Your task to perform on an android device: open a bookmark in the chrome app Image 0: 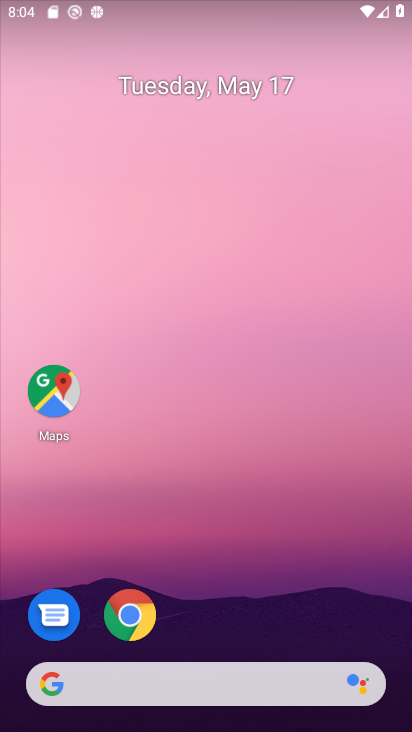
Step 0: click (126, 623)
Your task to perform on an android device: open a bookmark in the chrome app Image 1: 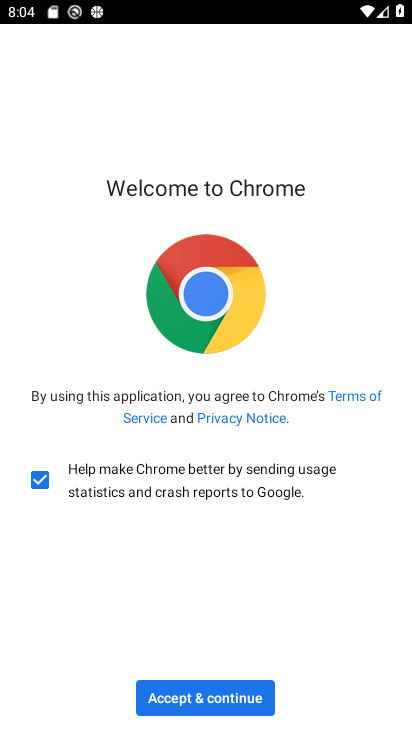
Step 1: click (197, 696)
Your task to perform on an android device: open a bookmark in the chrome app Image 2: 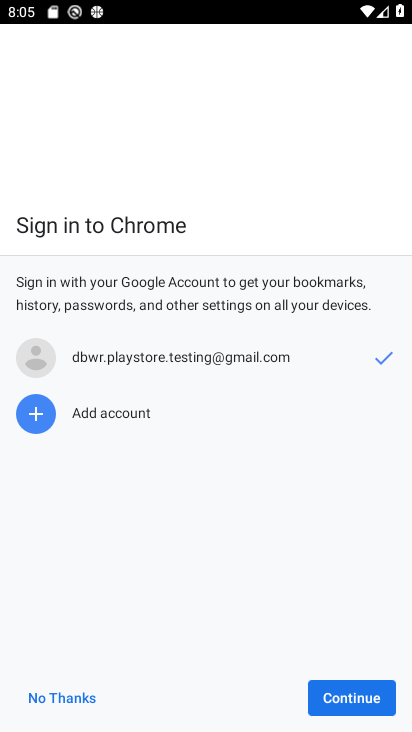
Step 2: click (329, 701)
Your task to perform on an android device: open a bookmark in the chrome app Image 3: 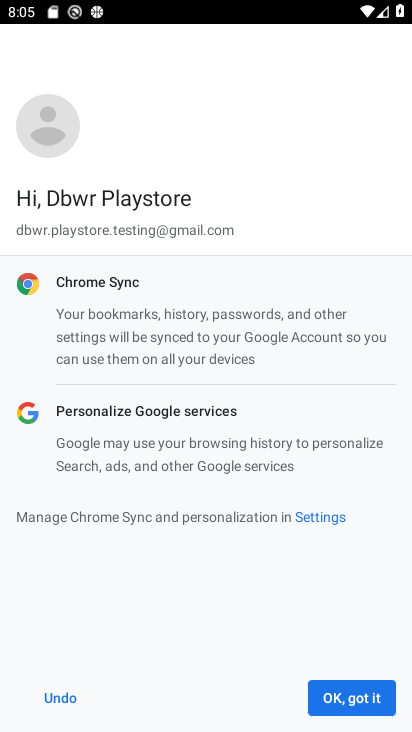
Step 3: click (333, 702)
Your task to perform on an android device: open a bookmark in the chrome app Image 4: 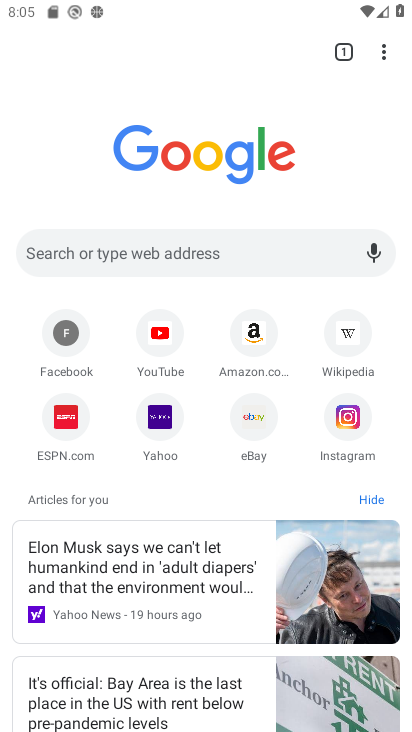
Step 4: drag from (386, 52) to (296, 194)
Your task to perform on an android device: open a bookmark in the chrome app Image 5: 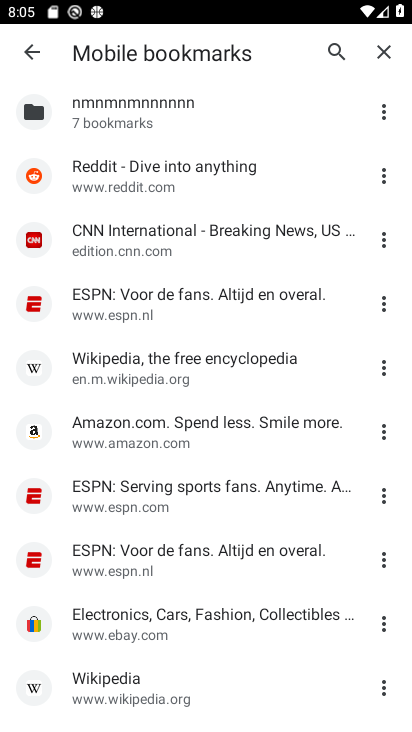
Step 5: click (205, 177)
Your task to perform on an android device: open a bookmark in the chrome app Image 6: 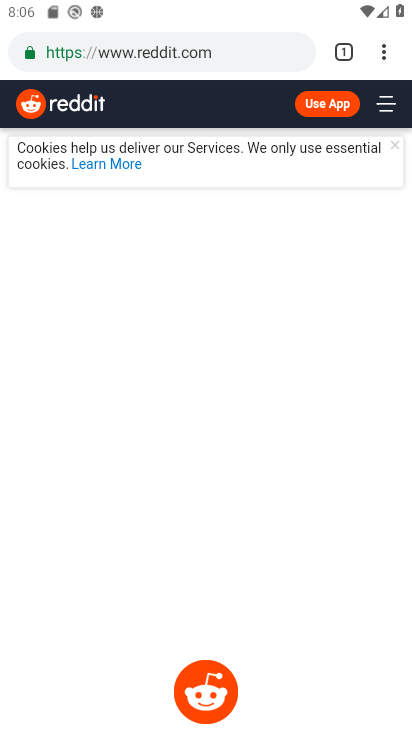
Step 6: task complete